Your task to perform on an android device: Go to internet settings Image 0: 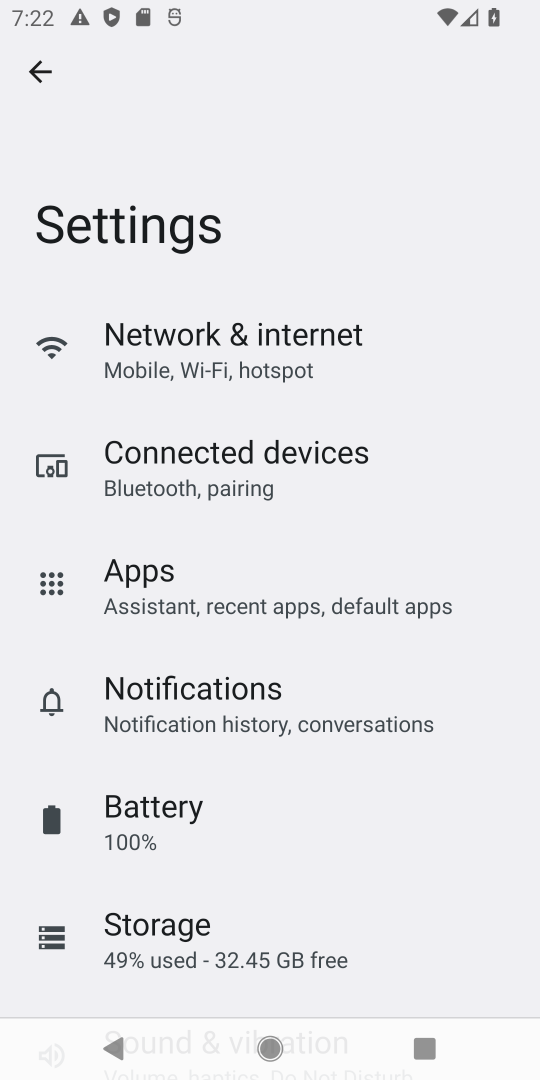
Step 0: click (224, 347)
Your task to perform on an android device: Go to internet settings Image 1: 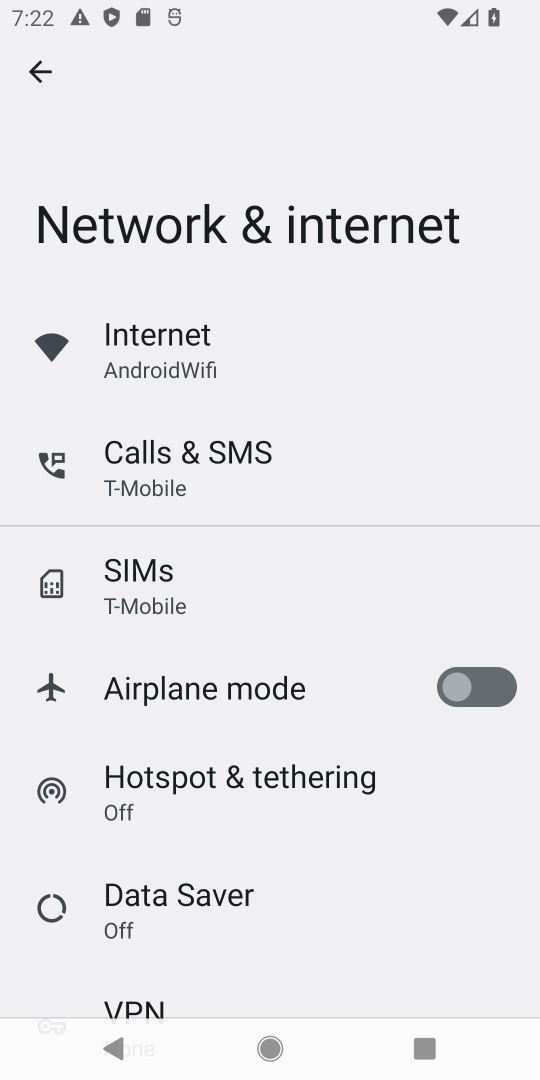
Step 1: click (132, 357)
Your task to perform on an android device: Go to internet settings Image 2: 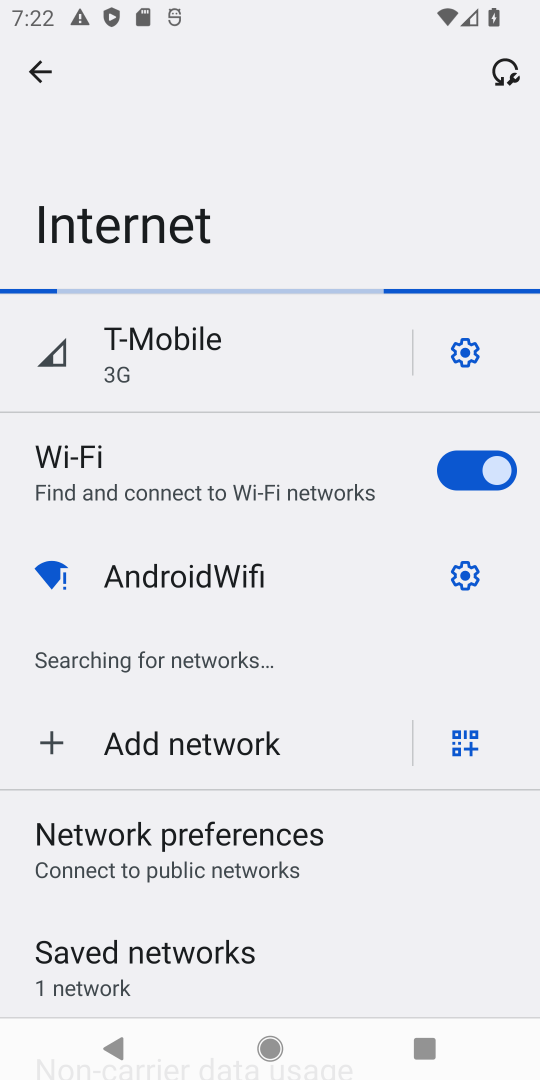
Step 2: task complete